Your task to perform on an android device: Open Google Chrome Image 0: 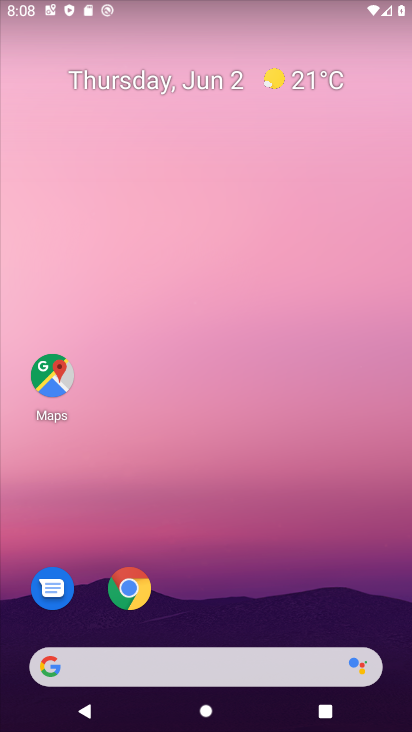
Step 0: click (142, 588)
Your task to perform on an android device: Open Google Chrome Image 1: 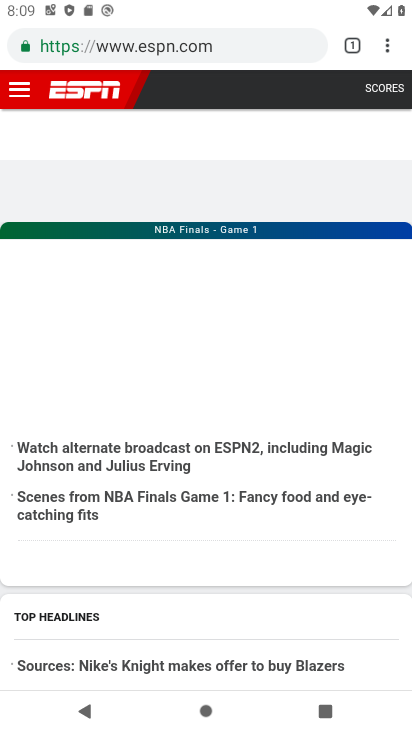
Step 1: task complete